Your task to perform on an android device: Open display settings Image 0: 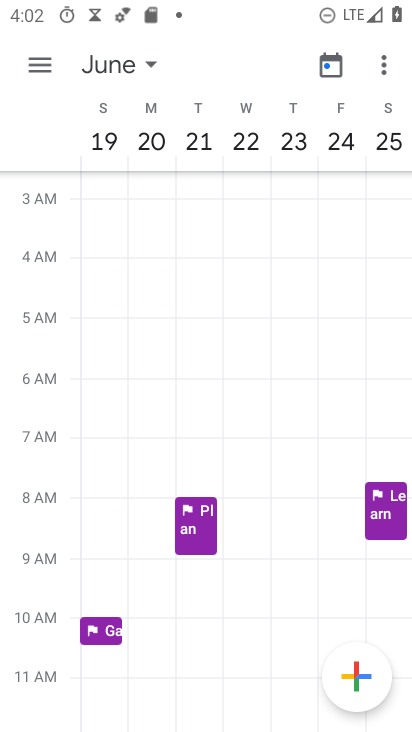
Step 0: press home button
Your task to perform on an android device: Open display settings Image 1: 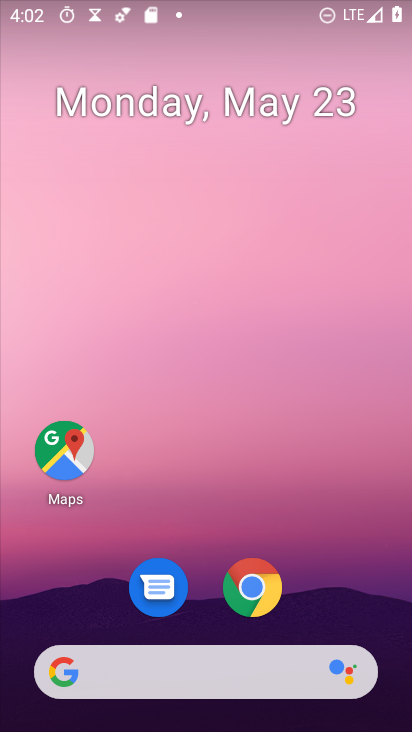
Step 1: drag from (193, 516) to (144, 15)
Your task to perform on an android device: Open display settings Image 2: 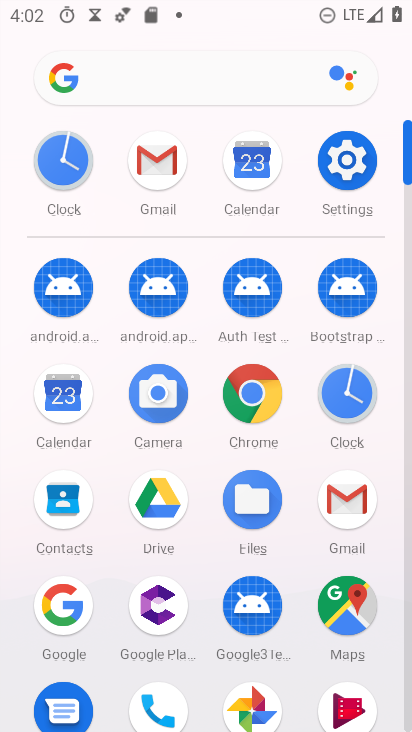
Step 2: click (359, 165)
Your task to perform on an android device: Open display settings Image 3: 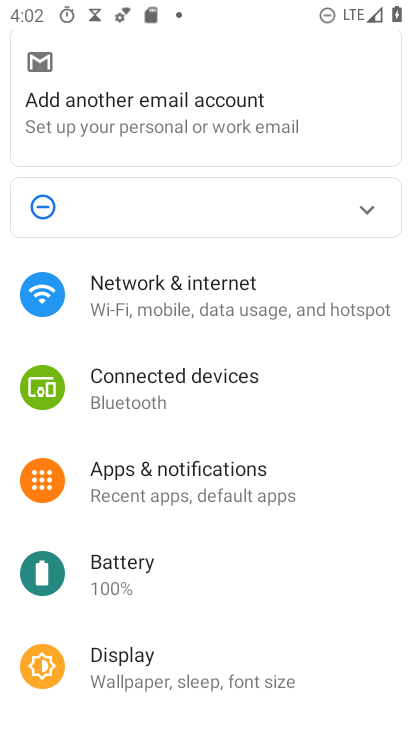
Step 3: click (143, 658)
Your task to perform on an android device: Open display settings Image 4: 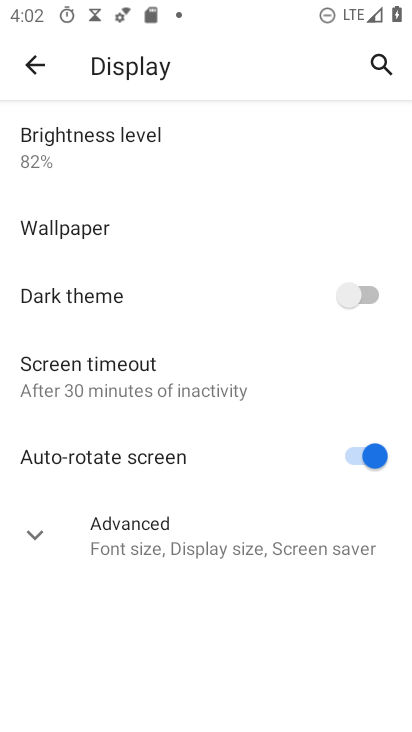
Step 4: task complete